Your task to perform on an android device: move a message to another label in the gmail app Image 0: 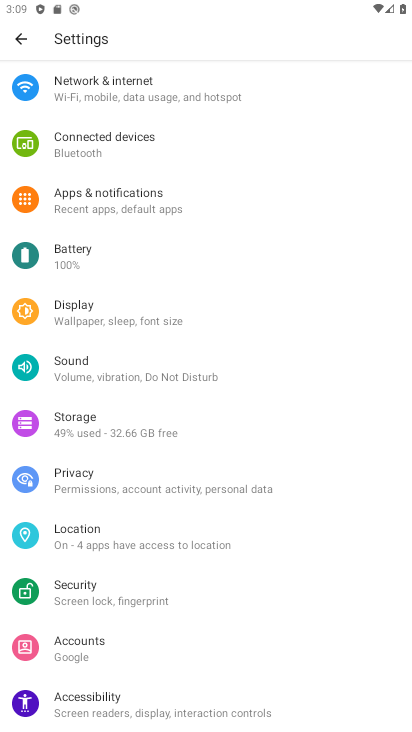
Step 0: press back button
Your task to perform on an android device: move a message to another label in the gmail app Image 1: 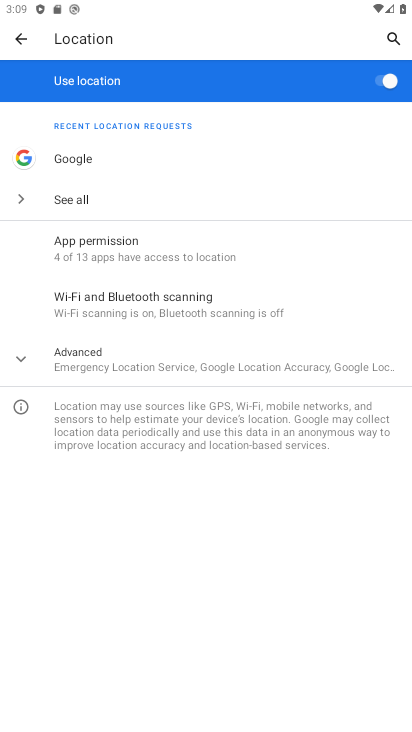
Step 1: press back button
Your task to perform on an android device: move a message to another label in the gmail app Image 2: 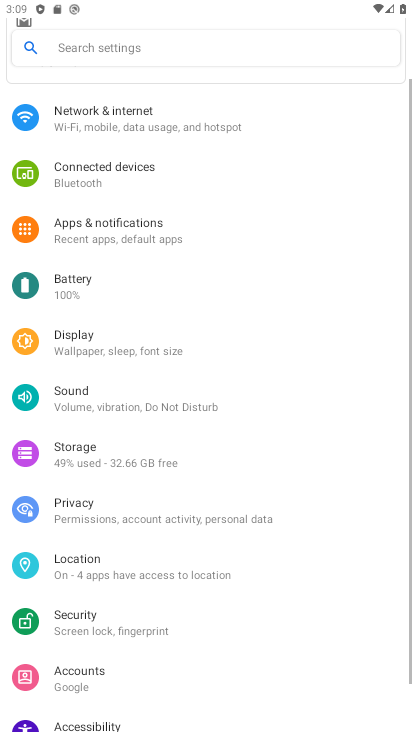
Step 2: press back button
Your task to perform on an android device: move a message to another label in the gmail app Image 3: 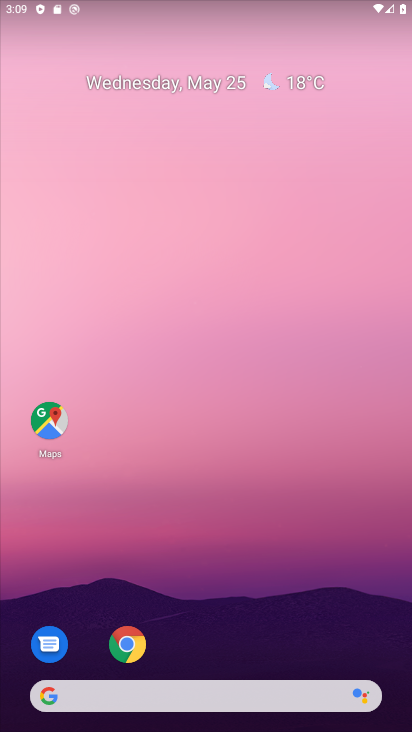
Step 3: drag from (226, 624) to (290, 202)
Your task to perform on an android device: move a message to another label in the gmail app Image 4: 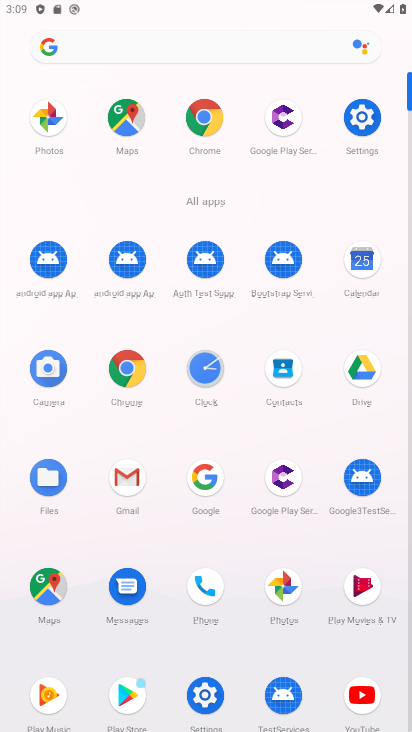
Step 4: click (125, 474)
Your task to perform on an android device: move a message to another label in the gmail app Image 5: 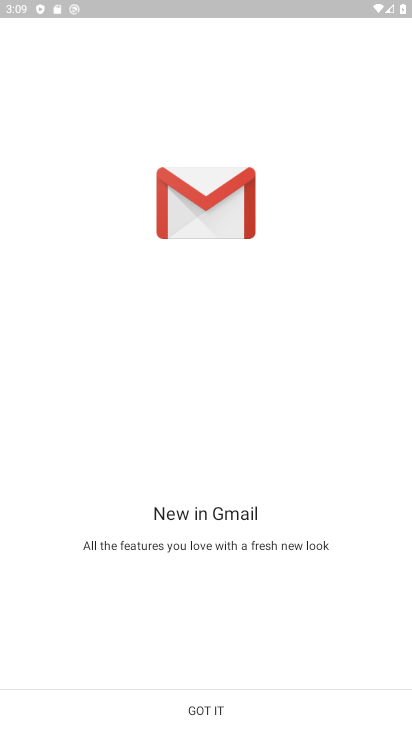
Step 5: click (209, 710)
Your task to perform on an android device: move a message to another label in the gmail app Image 6: 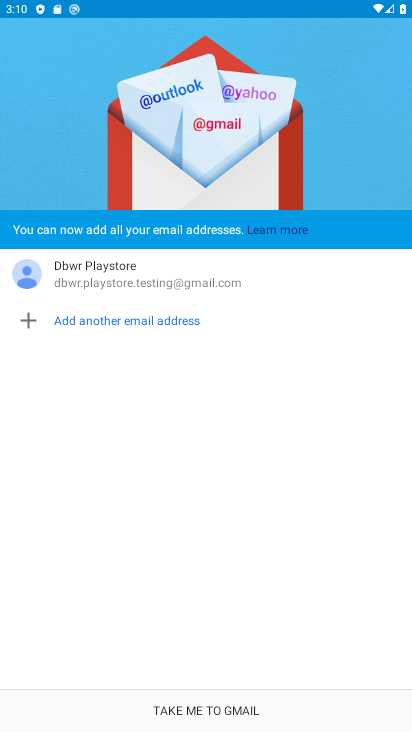
Step 6: click (209, 710)
Your task to perform on an android device: move a message to another label in the gmail app Image 7: 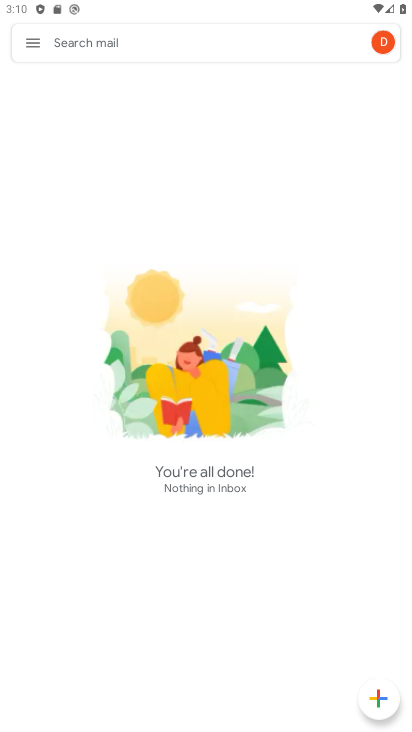
Step 7: click (35, 46)
Your task to perform on an android device: move a message to another label in the gmail app Image 8: 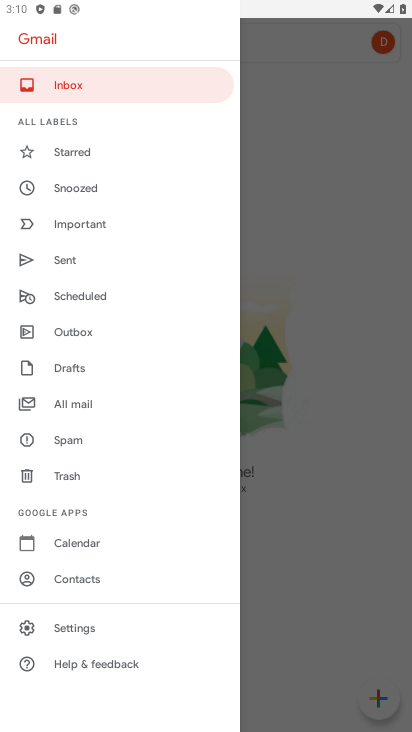
Step 8: click (67, 398)
Your task to perform on an android device: move a message to another label in the gmail app Image 9: 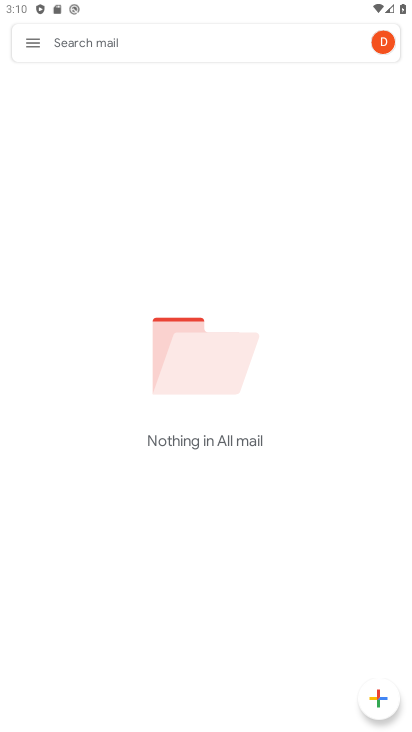
Step 9: click (40, 42)
Your task to perform on an android device: move a message to another label in the gmail app Image 10: 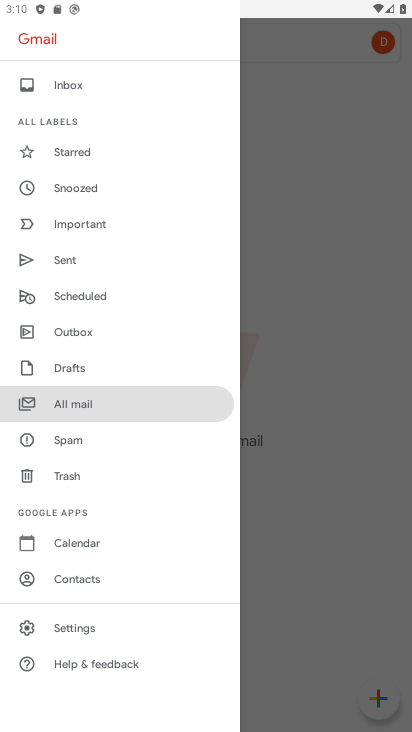
Step 10: click (96, 354)
Your task to perform on an android device: move a message to another label in the gmail app Image 11: 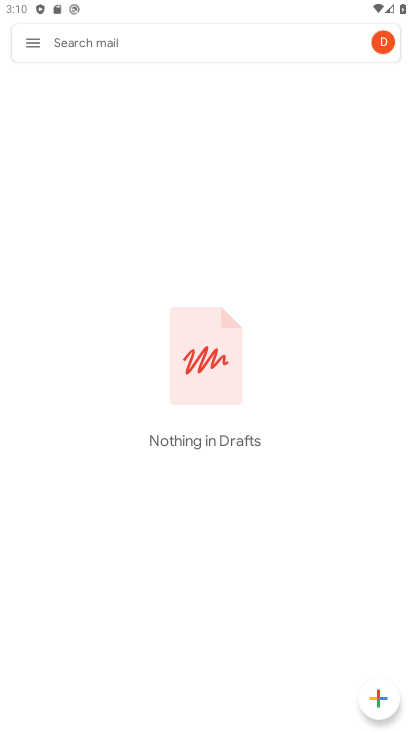
Step 11: click (36, 42)
Your task to perform on an android device: move a message to another label in the gmail app Image 12: 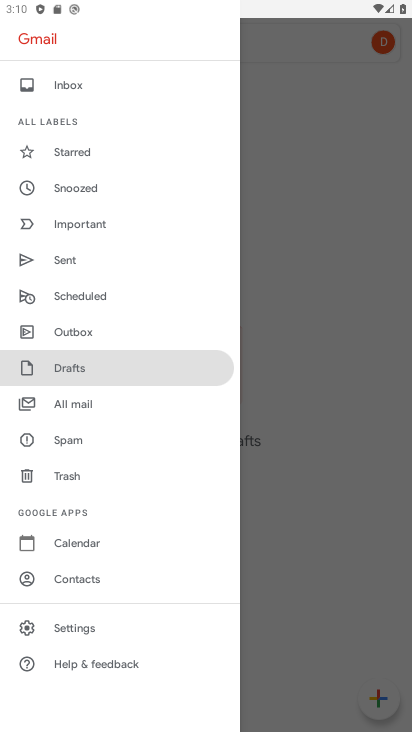
Step 12: click (87, 332)
Your task to perform on an android device: move a message to another label in the gmail app Image 13: 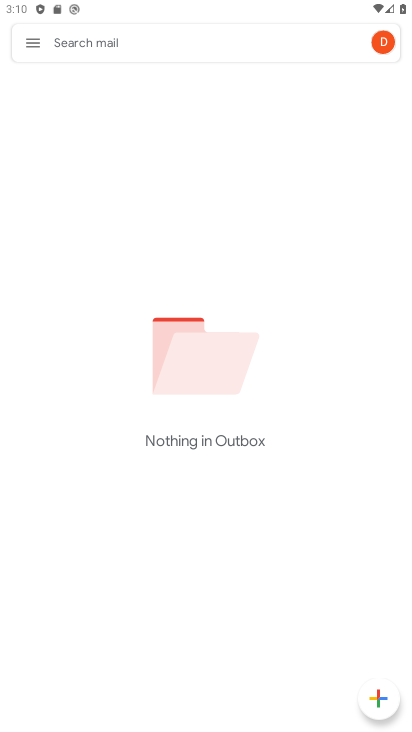
Step 13: click (33, 46)
Your task to perform on an android device: move a message to another label in the gmail app Image 14: 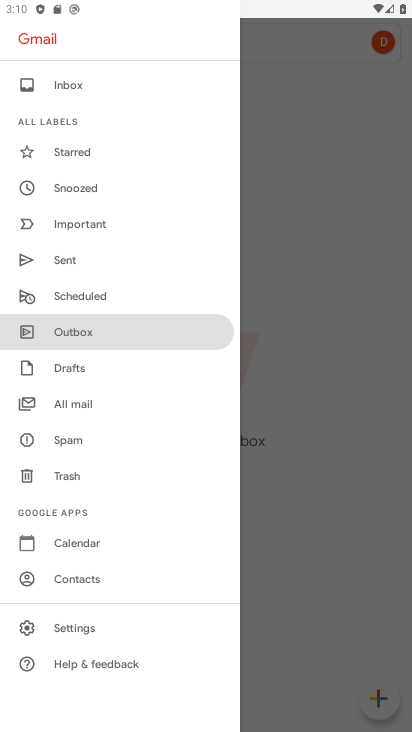
Step 14: click (103, 300)
Your task to perform on an android device: move a message to another label in the gmail app Image 15: 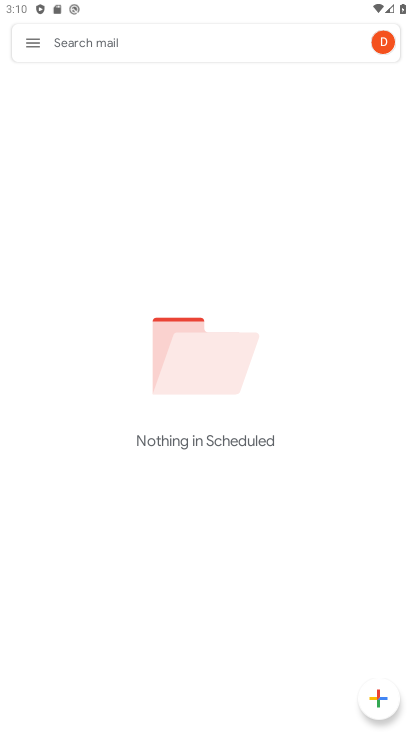
Step 15: click (39, 36)
Your task to perform on an android device: move a message to another label in the gmail app Image 16: 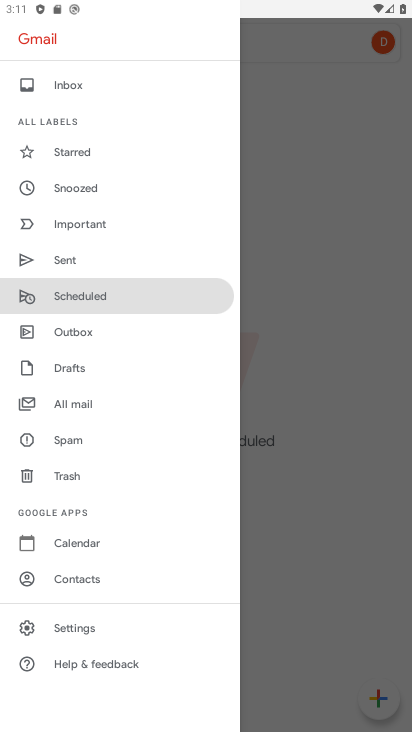
Step 16: click (88, 468)
Your task to perform on an android device: move a message to another label in the gmail app Image 17: 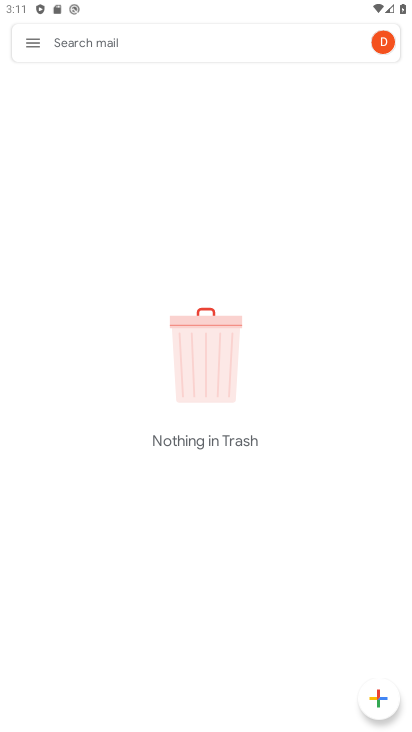
Step 17: task complete